Your task to perform on an android device: delete browsing data in the chrome app Image 0: 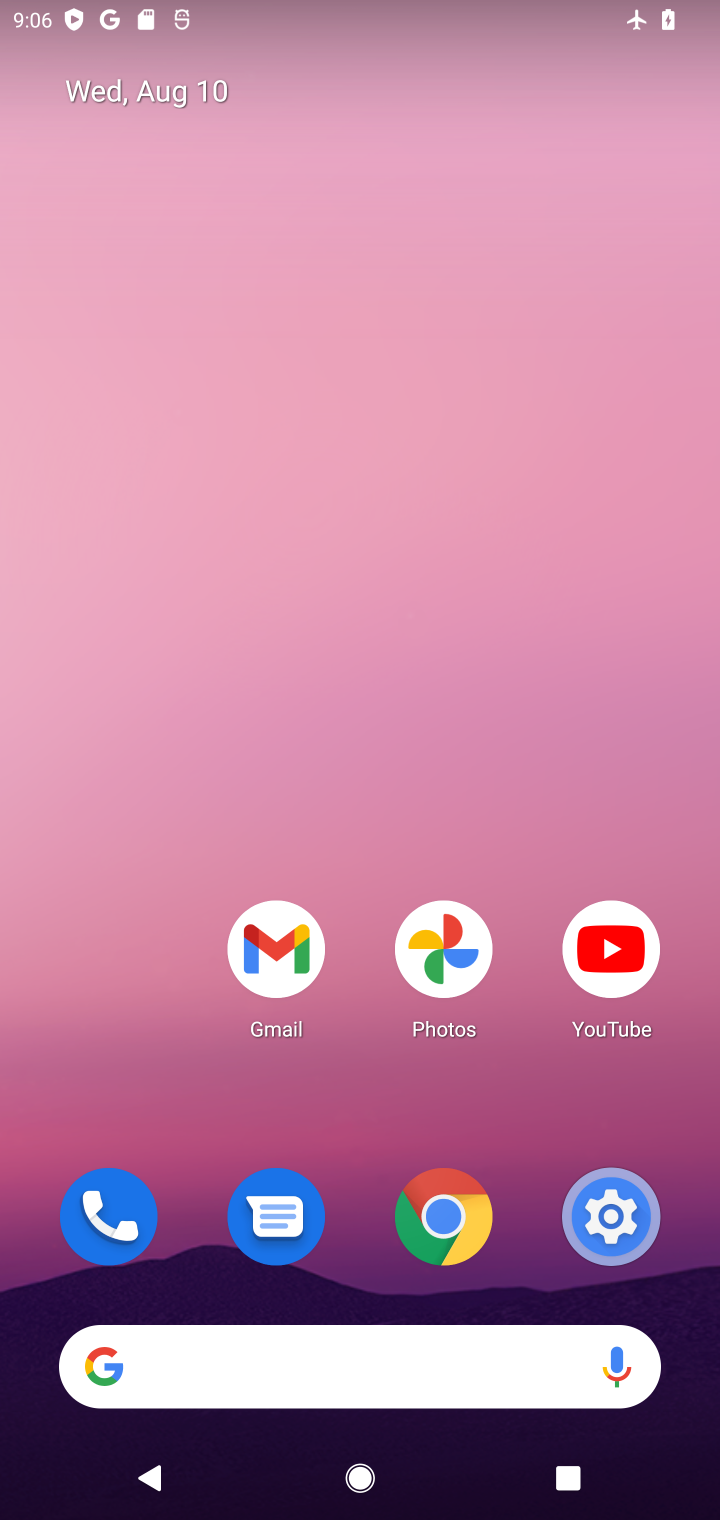
Step 0: click (458, 1208)
Your task to perform on an android device: delete browsing data in the chrome app Image 1: 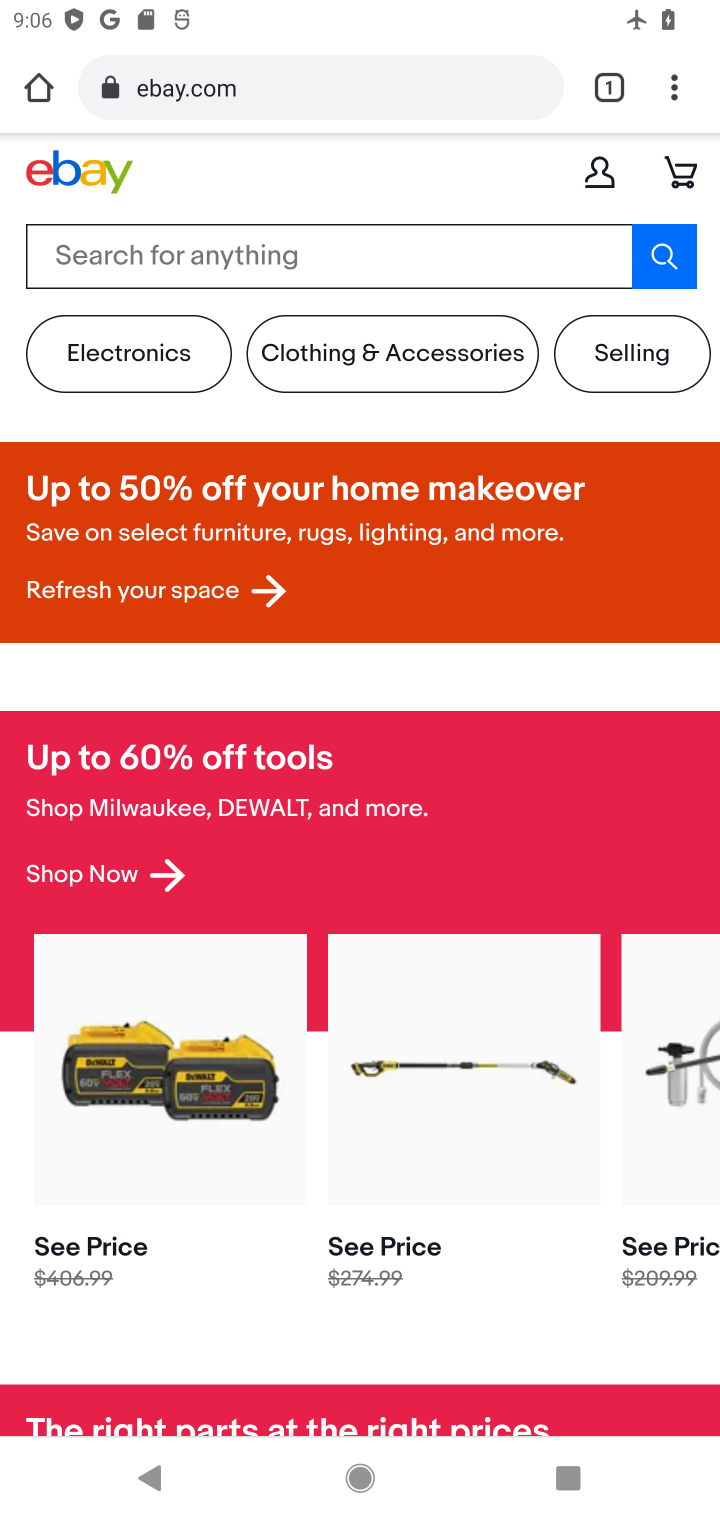
Step 1: click (170, 1102)
Your task to perform on an android device: delete browsing data in the chrome app Image 2: 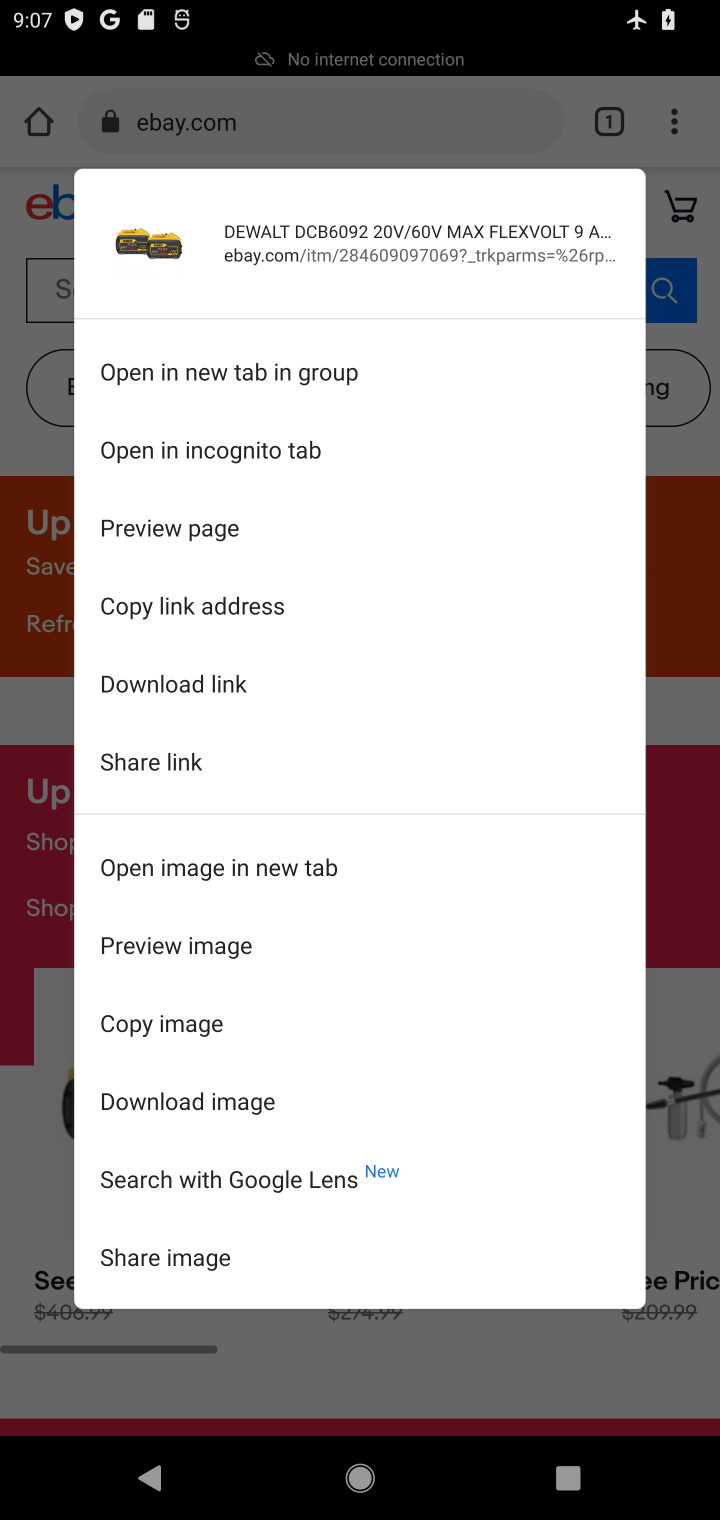
Step 2: task complete